Your task to perform on an android device: turn off improve location accuracy Image 0: 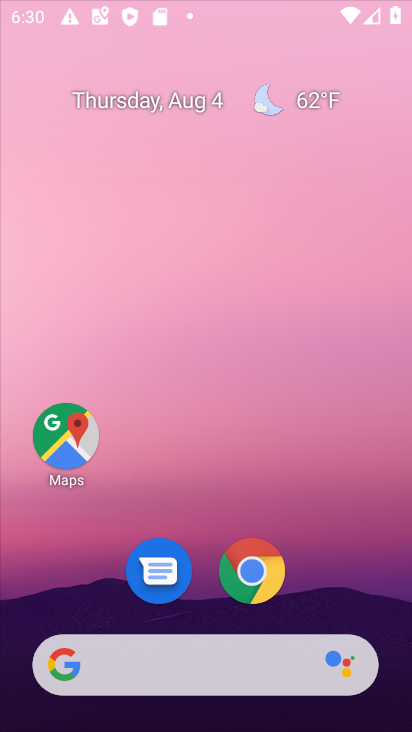
Step 0: press home button
Your task to perform on an android device: turn off improve location accuracy Image 1: 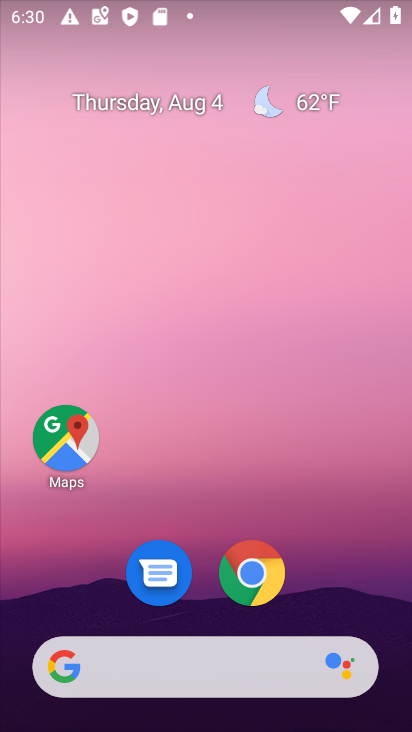
Step 1: drag from (205, 568) to (241, 191)
Your task to perform on an android device: turn off improve location accuracy Image 2: 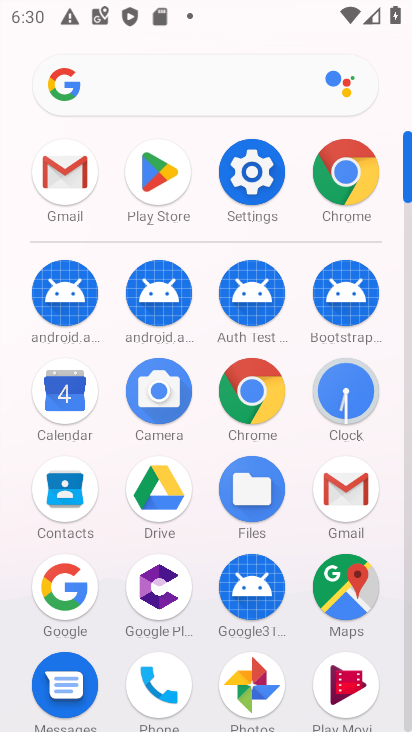
Step 2: click (260, 192)
Your task to perform on an android device: turn off improve location accuracy Image 3: 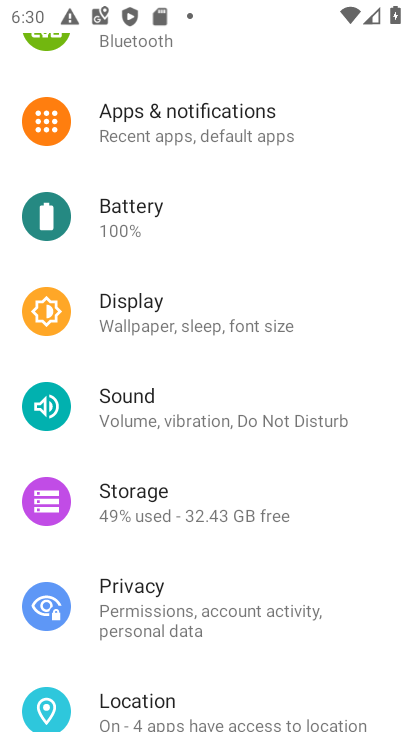
Step 3: click (120, 702)
Your task to perform on an android device: turn off improve location accuracy Image 4: 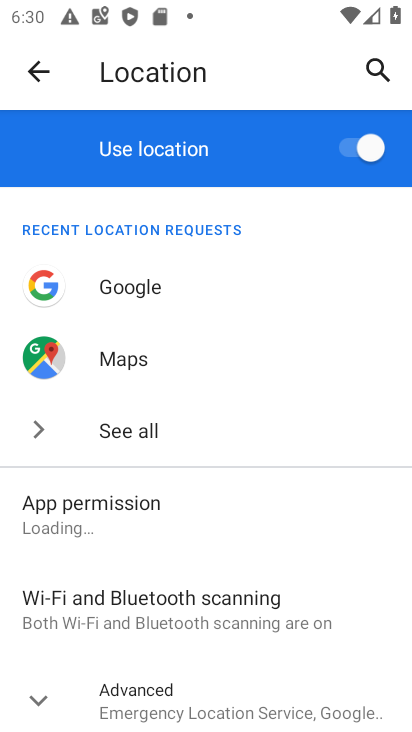
Step 4: click (160, 703)
Your task to perform on an android device: turn off improve location accuracy Image 5: 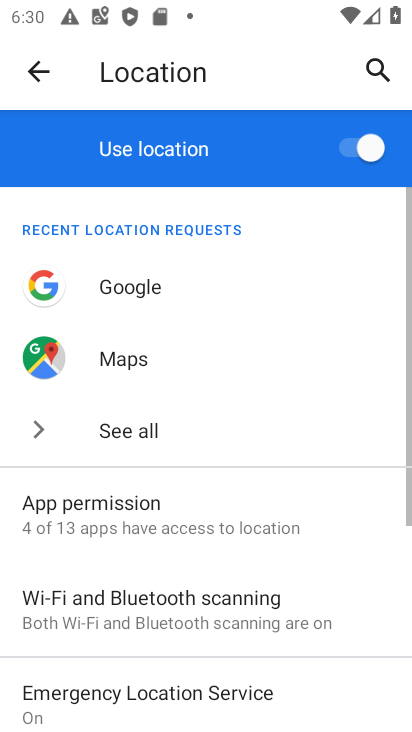
Step 5: drag from (188, 664) to (220, 241)
Your task to perform on an android device: turn off improve location accuracy Image 6: 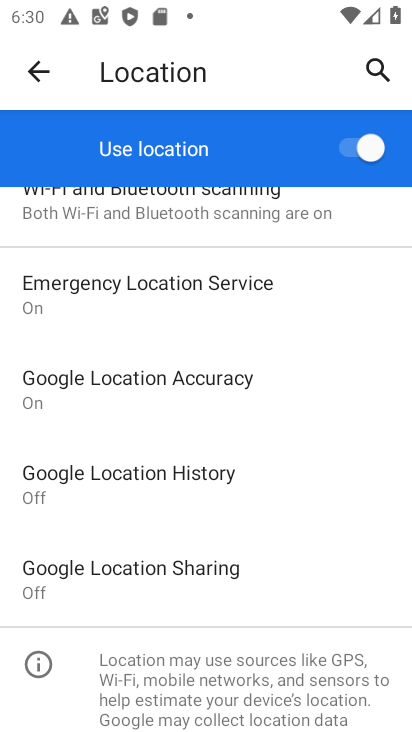
Step 6: click (160, 379)
Your task to perform on an android device: turn off improve location accuracy Image 7: 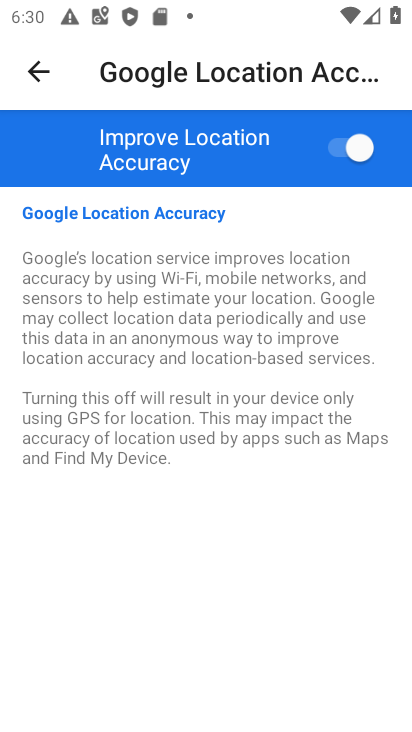
Step 7: click (368, 142)
Your task to perform on an android device: turn off improve location accuracy Image 8: 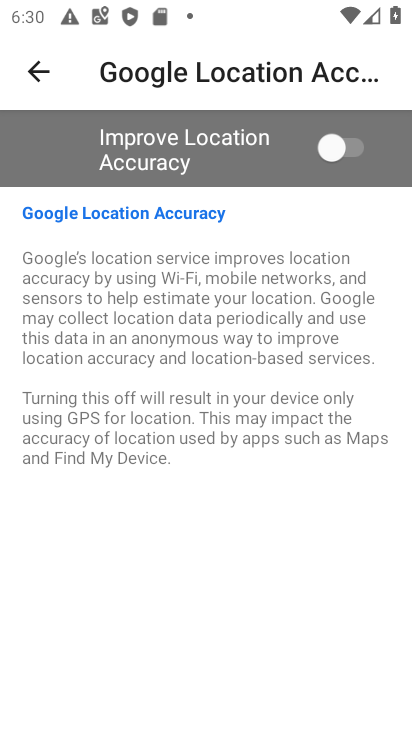
Step 8: task complete